Your task to perform on an android device: change your default location settings in chrome Image 0: 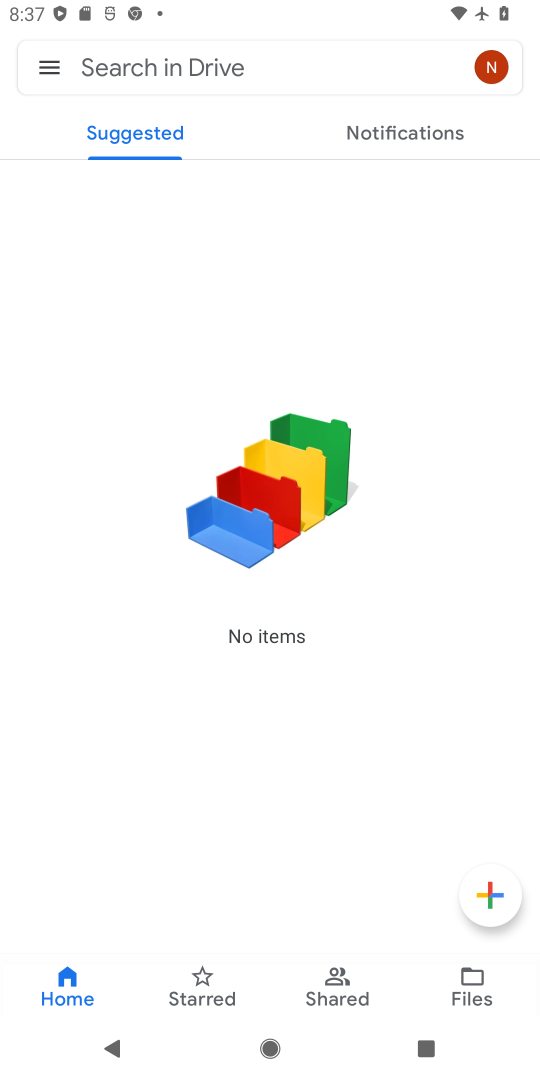
Step 0: press home button
Your task to perform on an android device: change your default location settings in chrome Image 1: 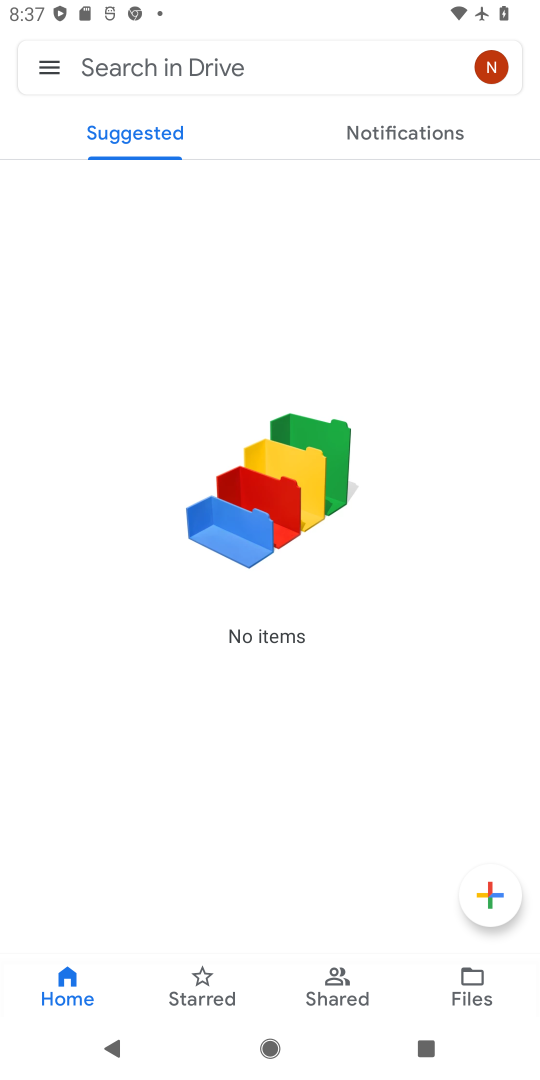
Step 1: press home button
Your task to perform on an android device: change your default location settings in chrome Image 2: 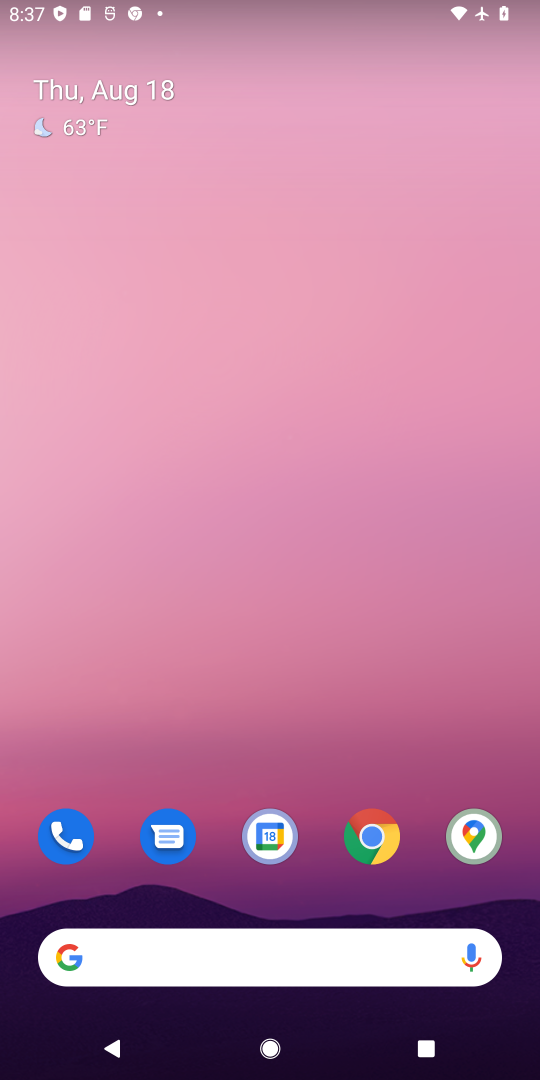
Step 2: drag from (333, 726) to (458, 3)
Your task to perform on an android device: change your default location settings in chrome Image 3: 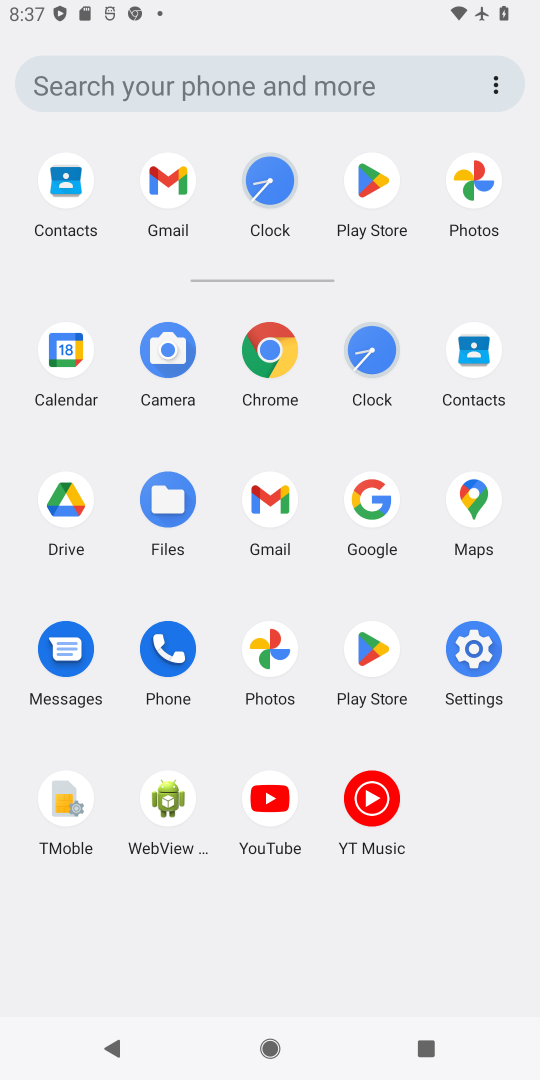
Step 3: click (267, 350)
Your task to perform on an android device: change your default location settings in chrome Image 4: 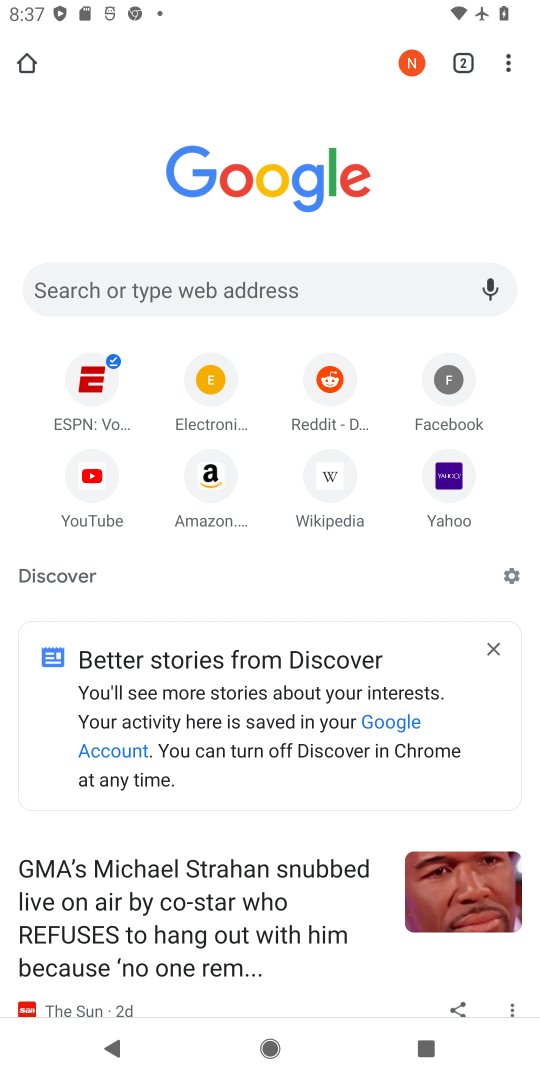
Step 4: click (505, 59)
Your task to perform on an android device: change your default location settings in chrome Image 5: 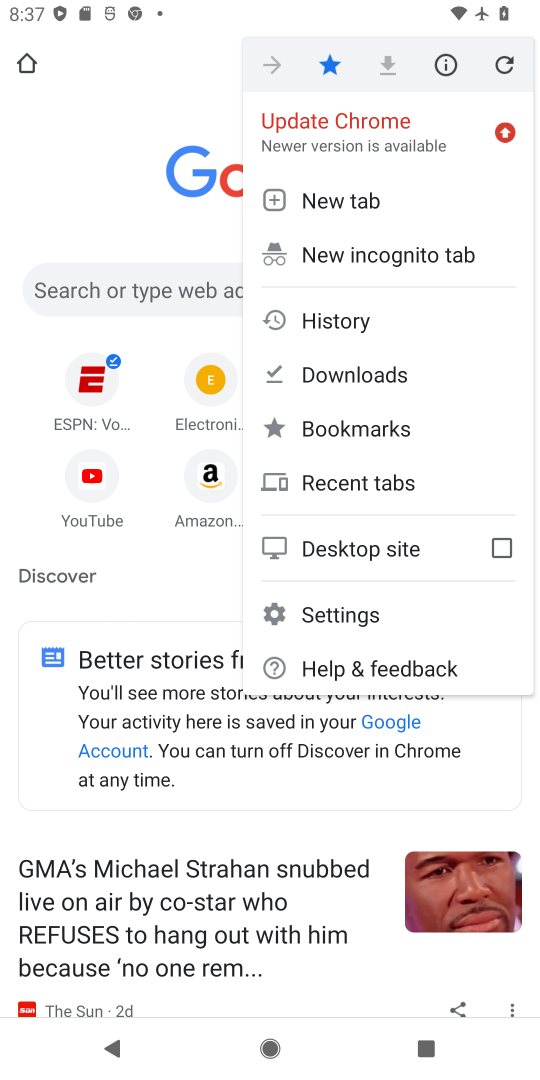
Step 5: click (361, 613)
Your task to perform on an android device: change your default location settings in chrome Image 6: 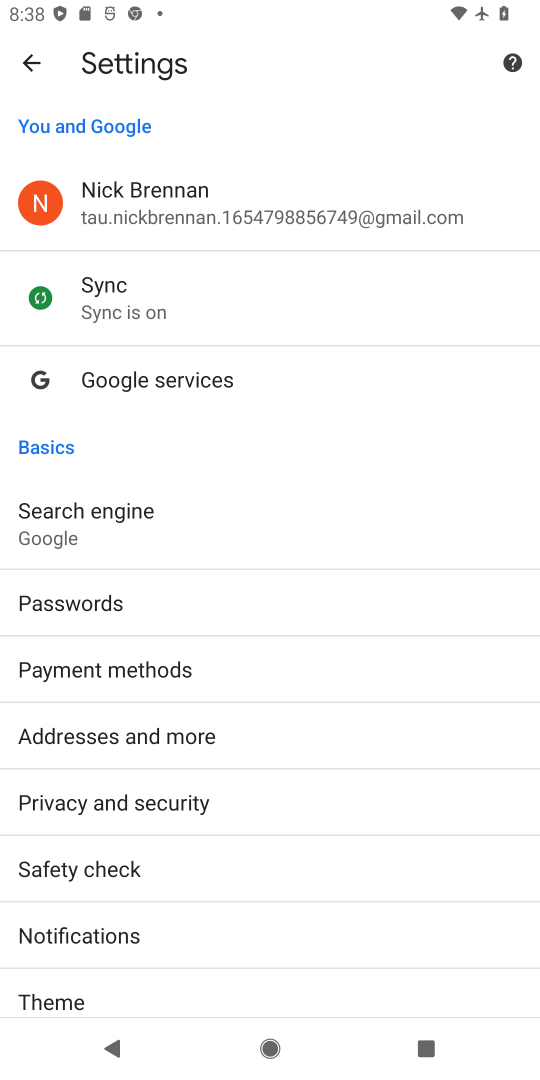
Step 6: drag from (280, 925) to (358, 176)
Your task to perform on an android device: change your default location settings in chrome Image 7: 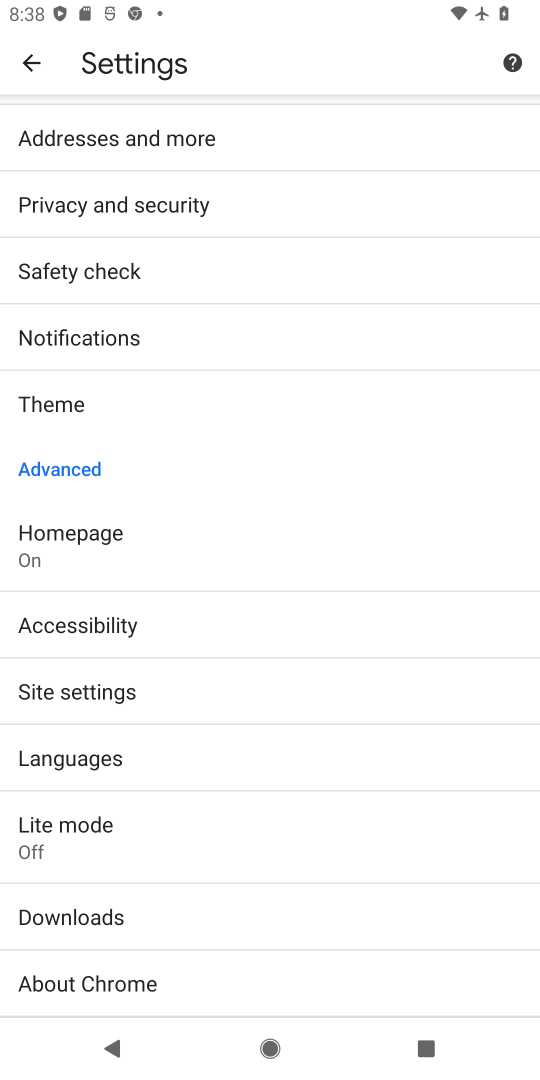
Step 7: drag from (183, 441) to (222, 826)
Your task to perform on an android device: change your default location settings in chrome Image 8: 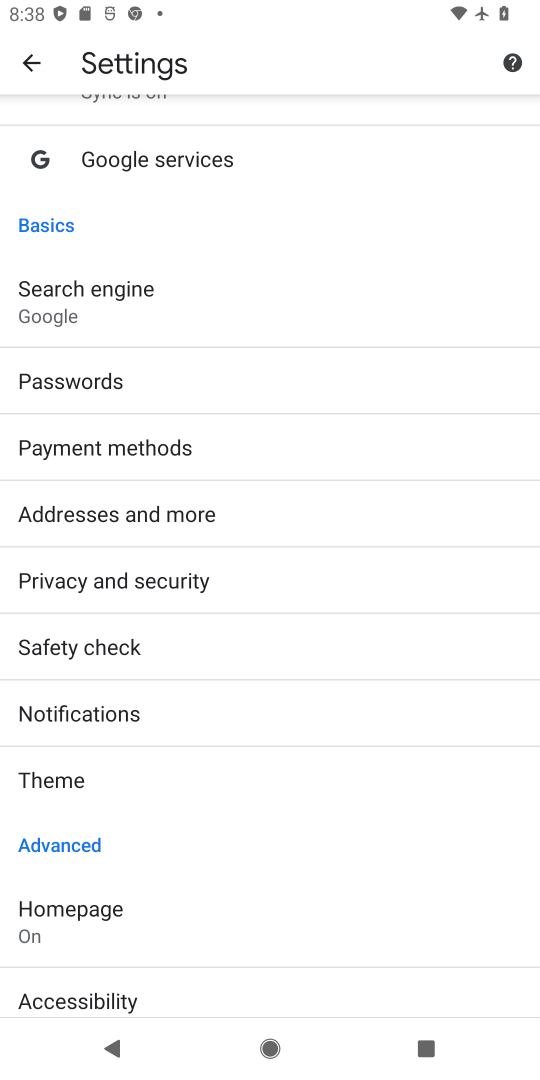
Step 8: drag from (272, 863) to (379, 252)
Your task to perform on an android device: change your default location settings in chrome Image 9: 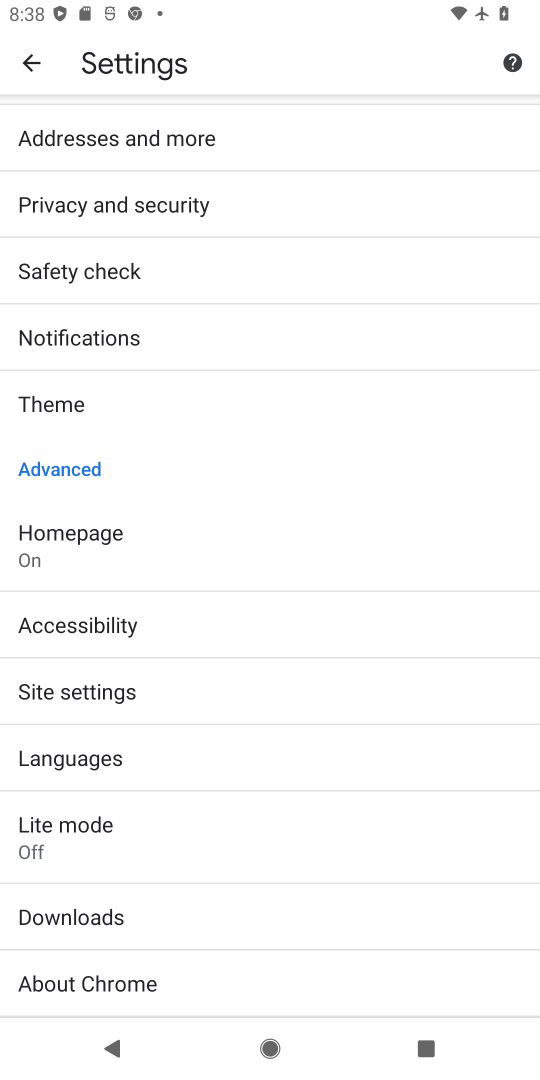
Step 9: click (101, 694)
Your task to perform on an android device: change your default location settings in chrome Image 10: 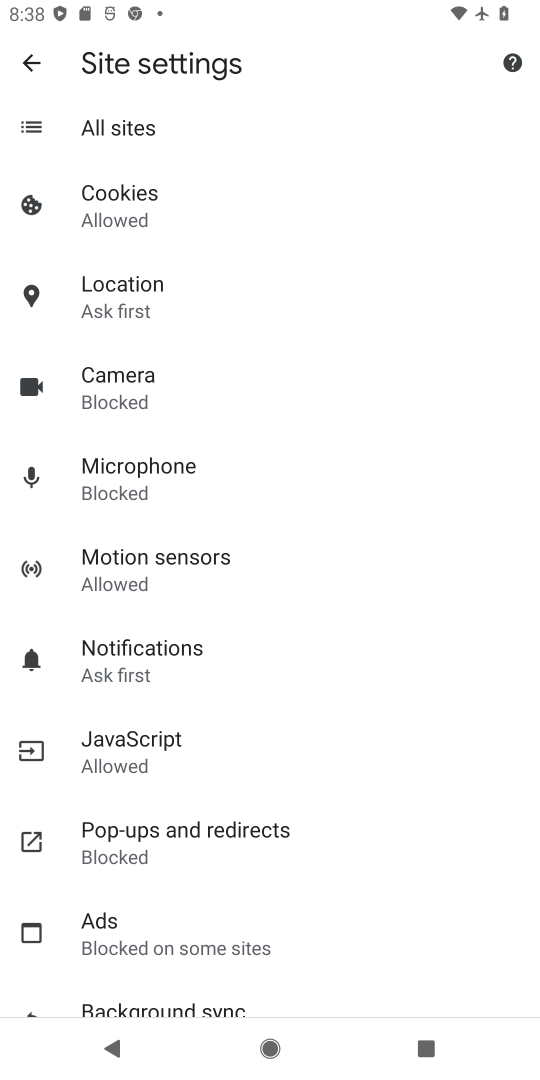
Step 10: click (166, 300)
Your task to perform on an android device: change your default location settings in chrome Image 11: 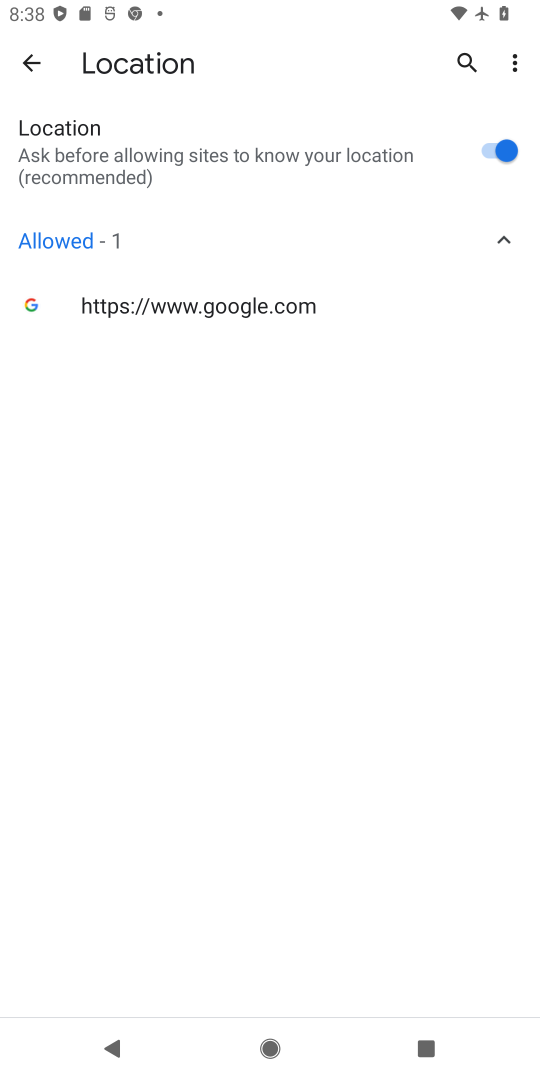
Step 11: click (495, 163)
Your task to perform on an android device: change your default location settings in chrome Image 12: 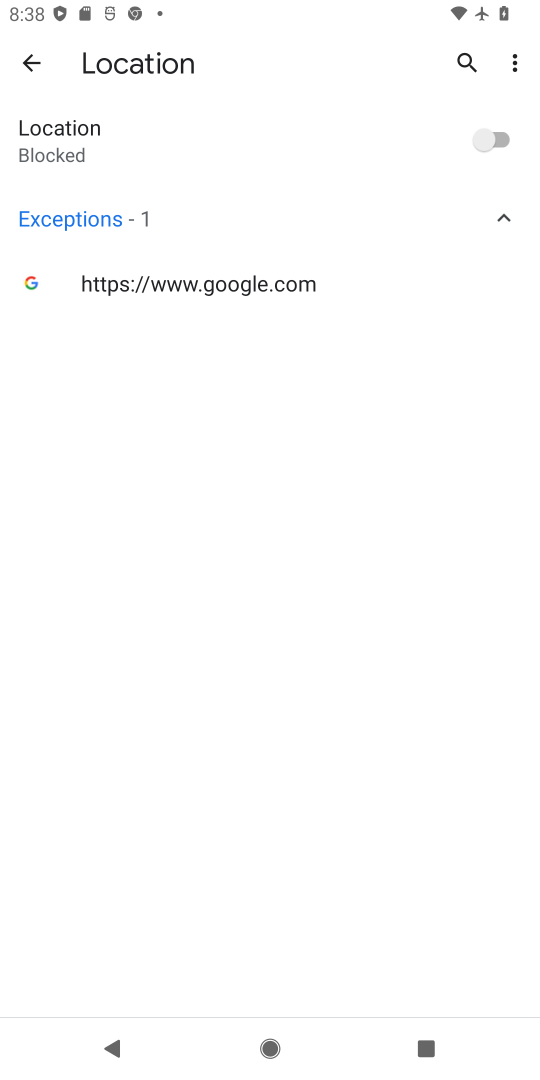
Step 12: task complete